Your task to perform on an android device: stop showing notifications on the lock screen Image 0: 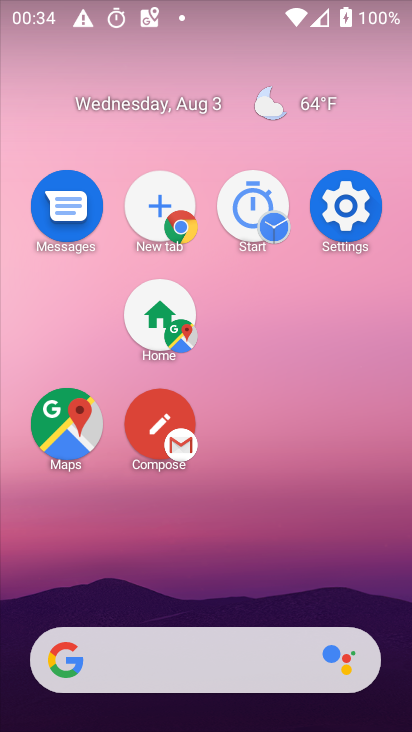
Step 0: click (345, 230)
Your task to perform on an android device: stop showing notifications on the lock screen Image 1: 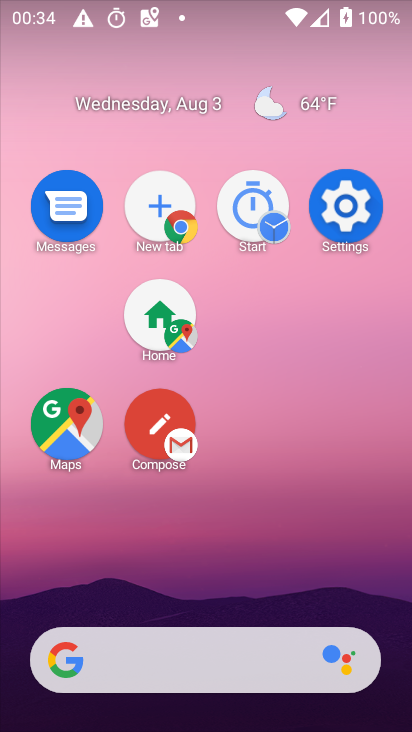
Step 1: click (344, 239)
Your task to perform on an android device: stop showing notifications on the lock screen Image 2: 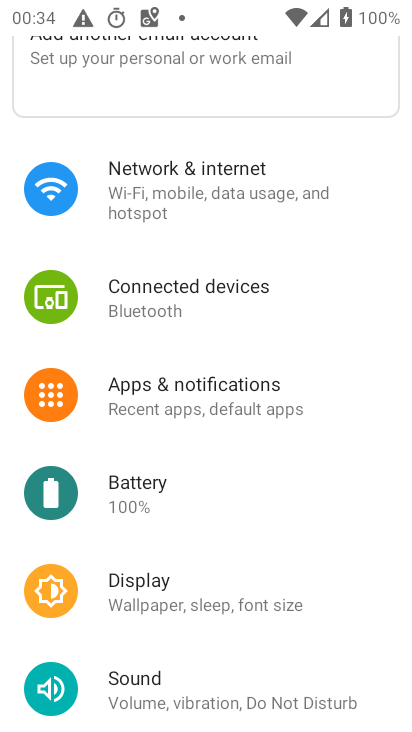
Step 2: click (204, 402)
Your task to perform on an android device: stop showing notifications on the lock screen Image 3: 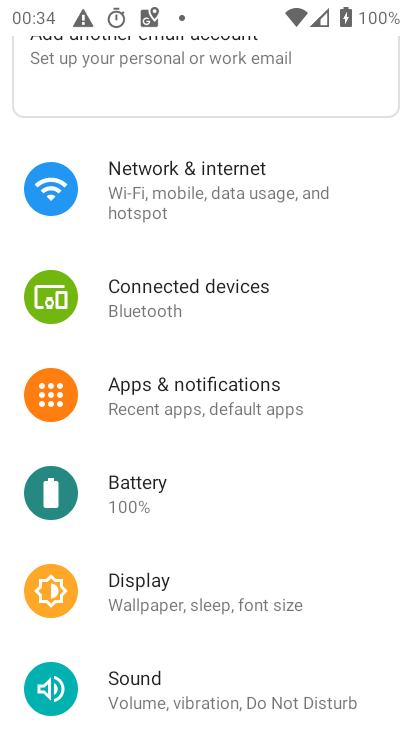
Step 3: click (204, 402)
Your task to perform on an android device: stop showing notifications on the lock screen Image 4: 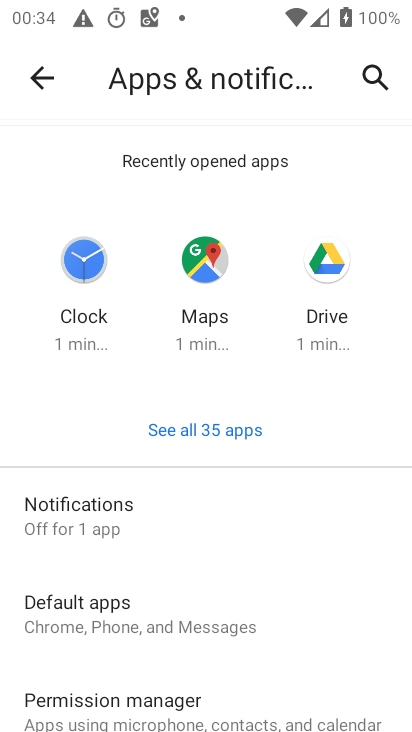
Step 4: drag from (183, 618) to (150, 324)
Your task to perform on an android device: stop showing notifications on the lock screen Image 5: 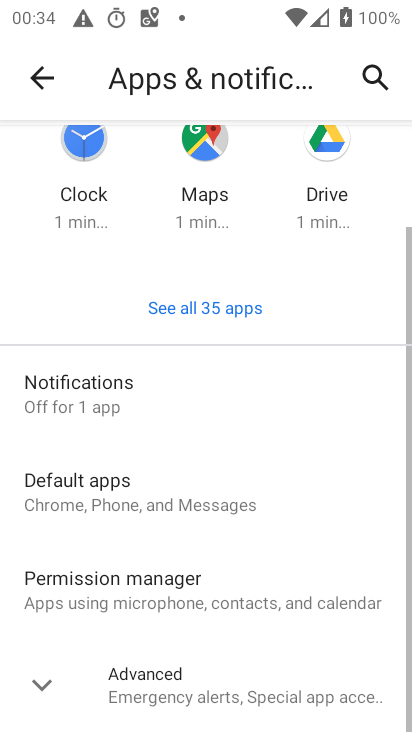
Step 5: drag from (239, 622) to (227, 417)
Your task to perform on an android device: stop showing notifications on the lock screen Image 6: 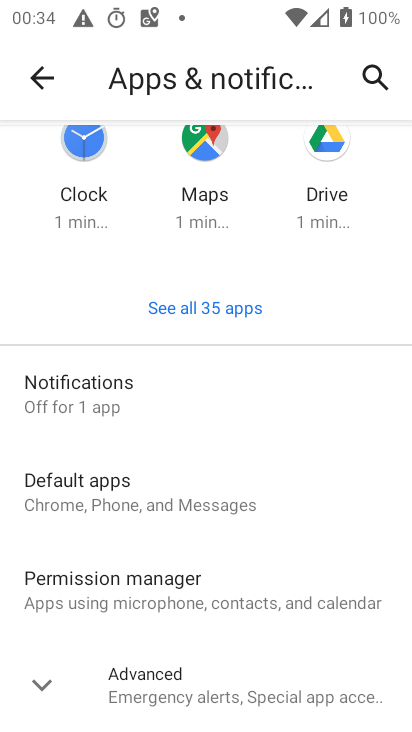
Step 6: click (76, 376)
Your task to perform on an android device: stop showing notifications on the lock screen Image 7: 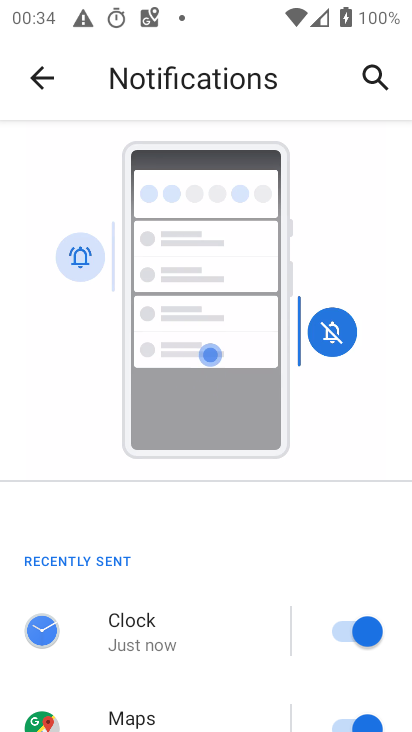
Step 7: drag from (234, 407) to (207, 312)
Your task to perform on an android device: stop showing notifications on the lock screen Image 8: 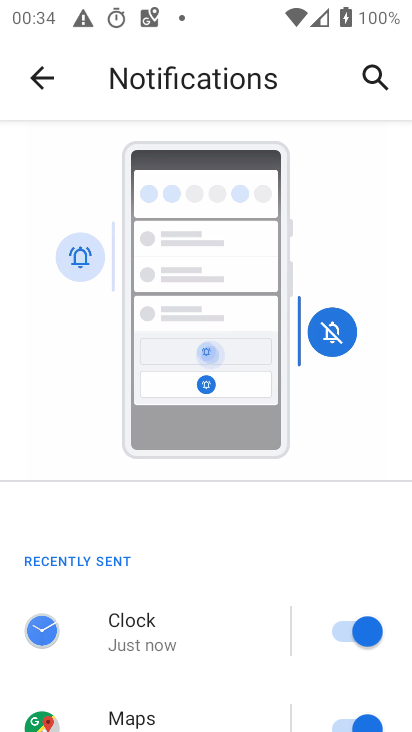
Step 8: drag from (272, 515) to (218, 324)
Your task to perform on an android device: stop showing notifications on the lock screen Image 9: 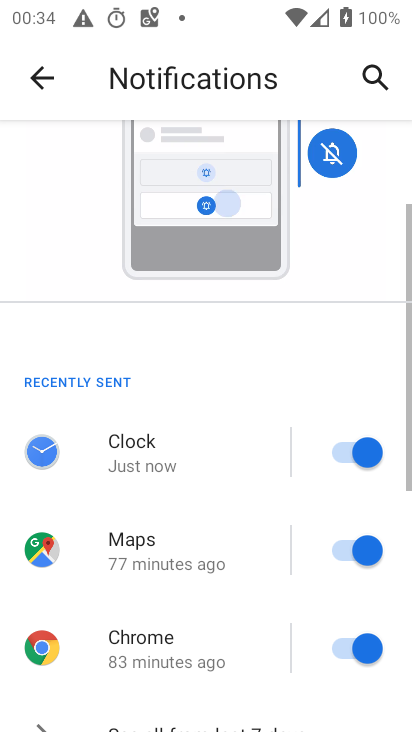
Step 9: drag from (260, 495) to (180, 254)
Your task to perform on an android device: stop showing notifications on the lock screen Image 10: 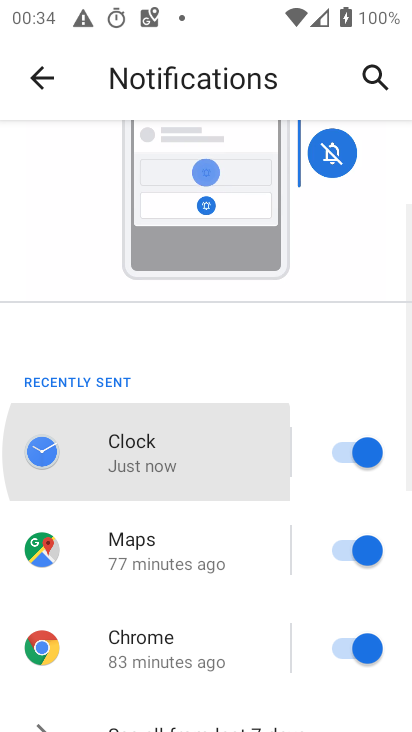
Step 10: drag from (227, 510) to (181, 239)
Your task to perform on an android device: stop showing notifications on the lock screen Image 11: 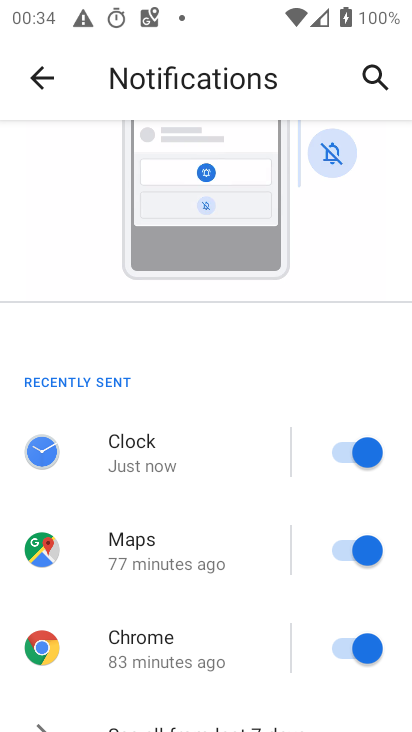
Step 11: drag from (248, 402) to (224, 299)
Your task to perform on an android device: stop showing notifications on the lock screen Image 12: 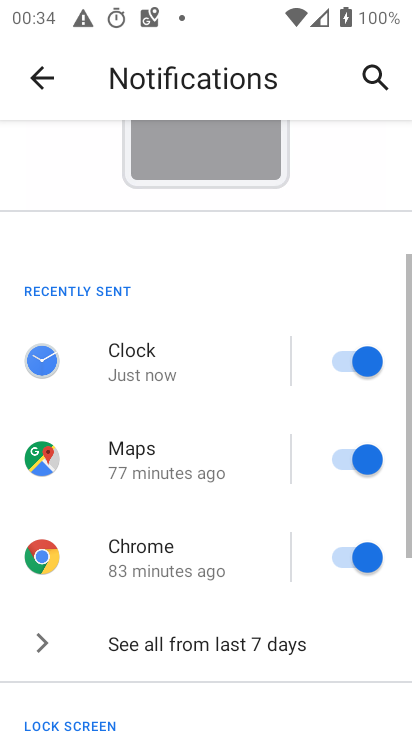
Step 12: drag from (229, 456) to (164, 223)
Your task to perform on an android device: stop showing notifications on the lock screen Image 13: 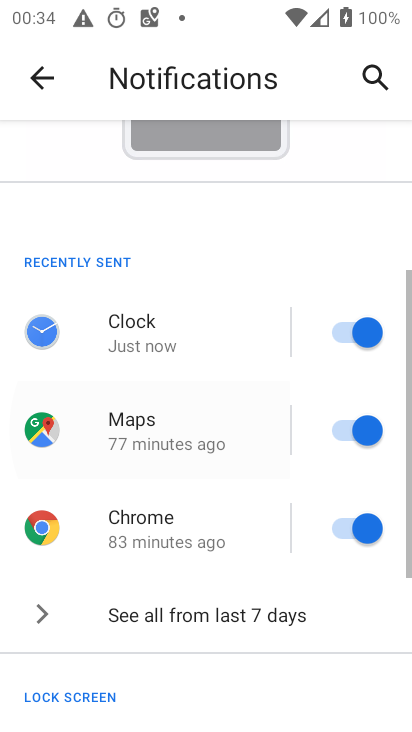
Step 13: drag from (212, 545) to (178, 323)
Your task to perform on an android device: stop showing notifications on the lock screen Image 14: 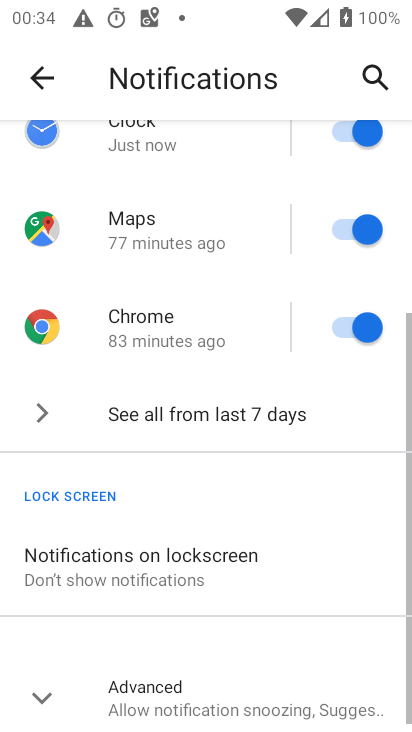
Step 14: drag from (250, 620) to (208, 403)
Your task to perform on an android device: stop showing notifications on the lock screen Image 15: 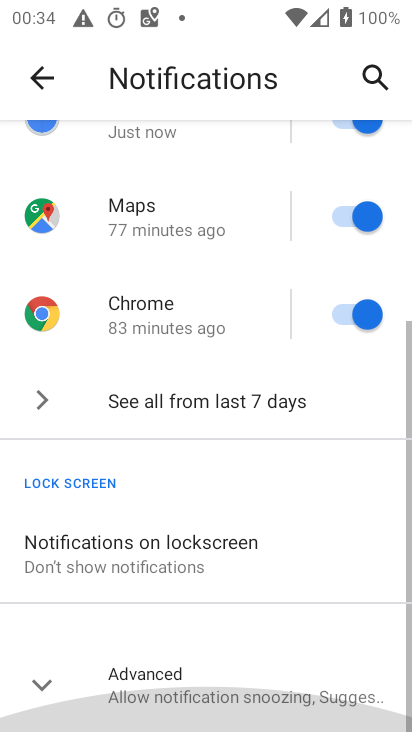
Step 15: drag from (251, 585) to (191, 348)
Your task to perform on an android device: stop showing notifications on the lock screen Image 16: 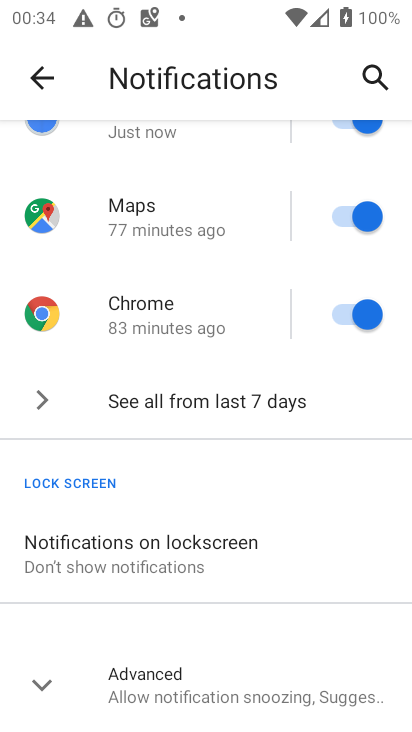
Step 16: click (135, 550)
Your task to perform on an android device: stop showing notifications on the lock screen Image 17: 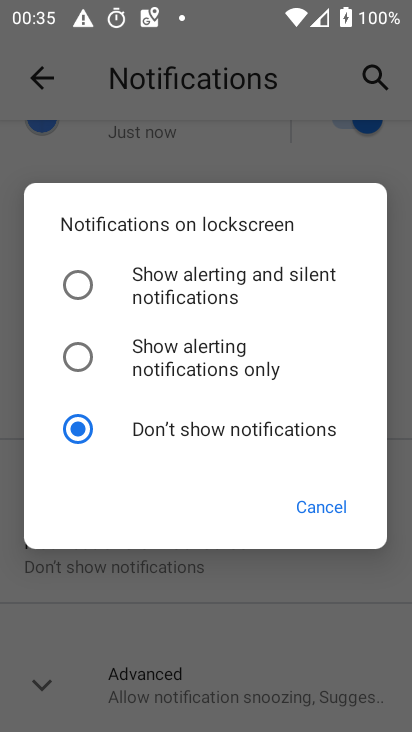
Step 17: click (300, 493)
Your task to perform on an android device: stop showing notifications on the lock screen Image 18: 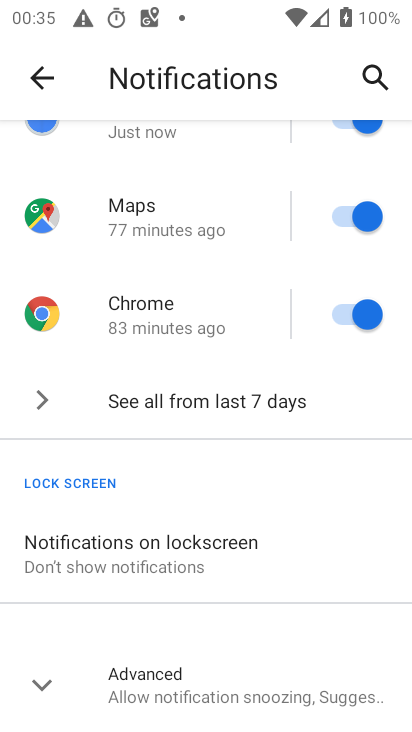
Step 18: task complete